Your task to perform on an android device: turn off priority inbox in the gmail app Image 0: 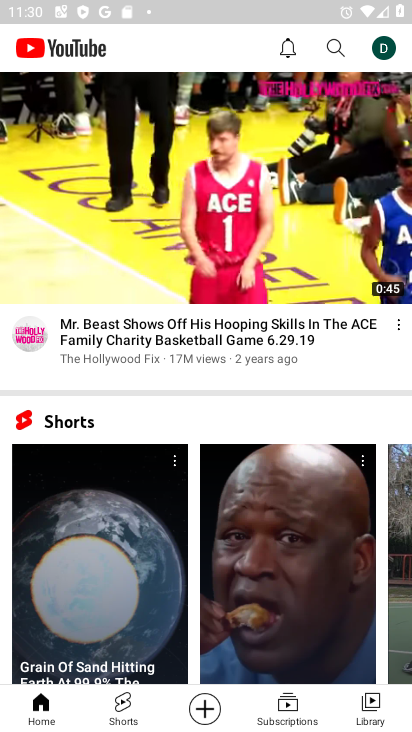
Step 0: press home button
Your task to perform on an android device: turn off priority inbox in the gmail app Image 1: 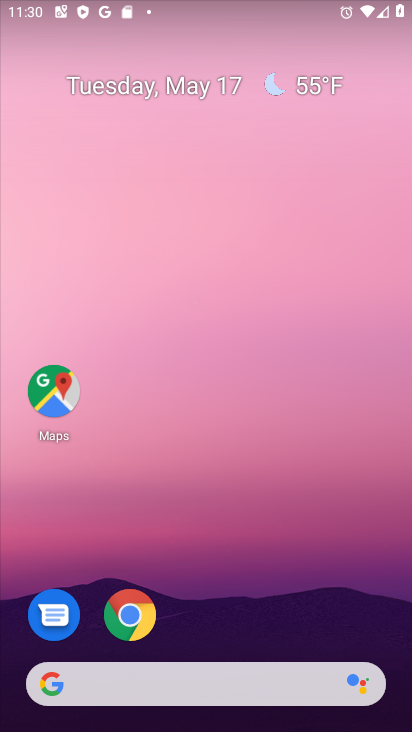
Step 1: drag from (274, 514) to (237, 100)
Your task to perform on an android device: turn off priority inbox in the gmail app Image 2: 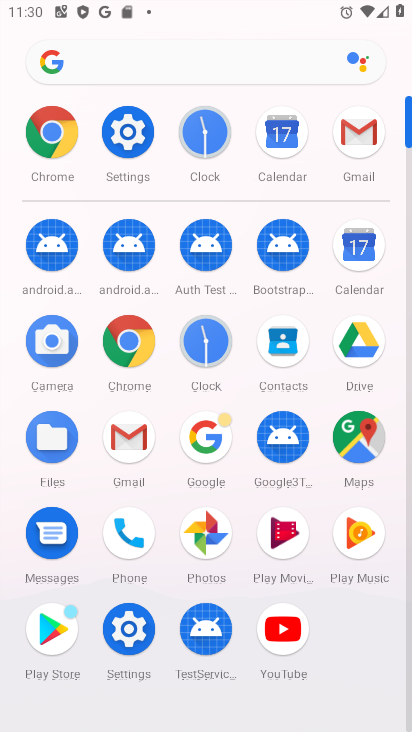
Step 2: click (352, 130)
Your task to perform on an android device: turn off priority inbox in the gmail app Image 3: 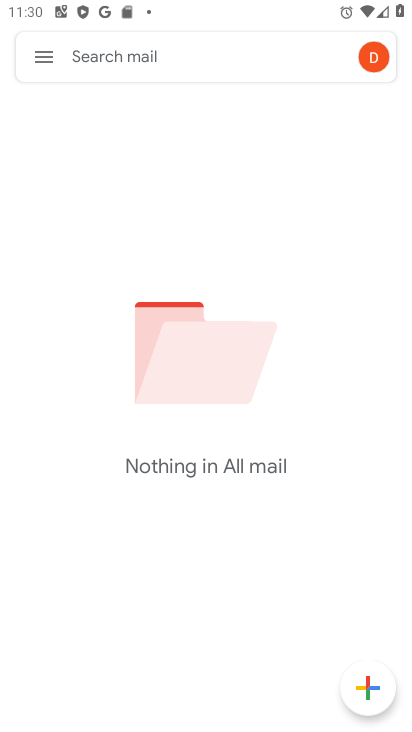
Step 3: click (43, 43)
Your task to perform on an android device: turn off priority inbox in the gmail app Image 4: 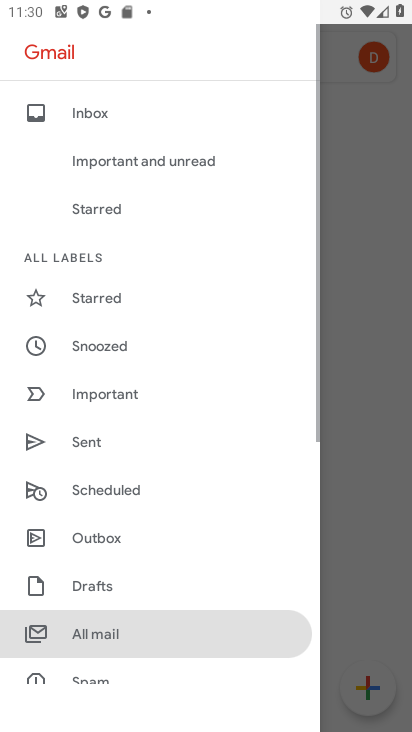
Step 4: drag from (213, 599) to (325, 154)
Your task to perform on an android device: turn off priority inbox in the gmail app Image 5: 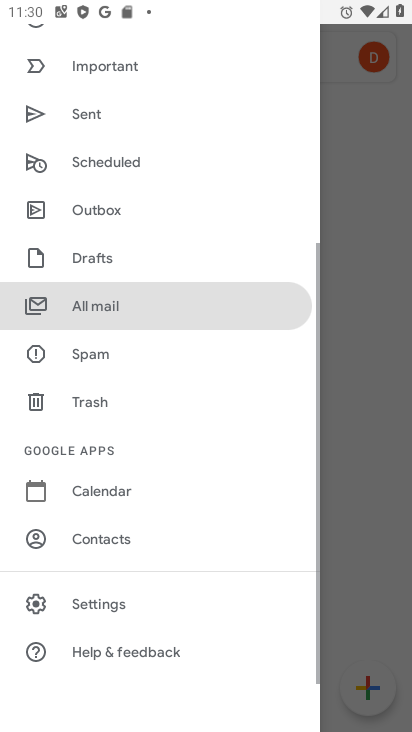
Step 5: click (108, 595)
Your task to perform on an android device: turn off priority inbox in the gmail app Image 6: 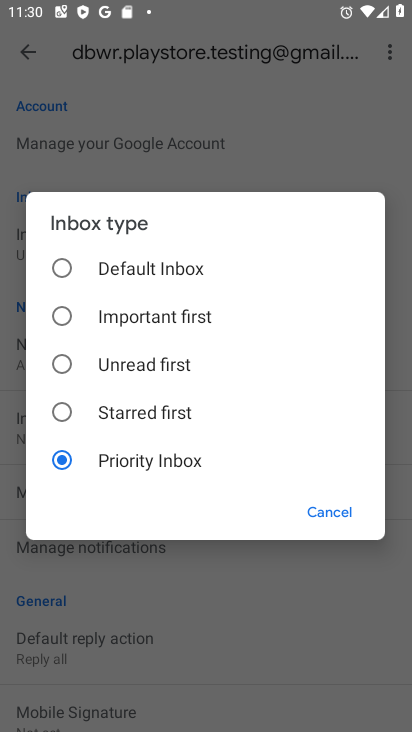
Step 6: task complete